Your task to perform on an android device: Add "duracell triple a" to the cart on target.com Image 0: 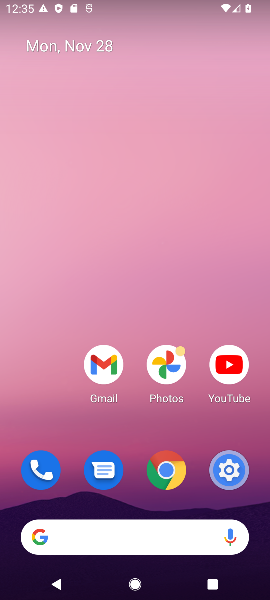
Step 0: click (136, 542)
Your task to perform on an android device: Add "duracell triple a" to the cart on target.com Image 1: 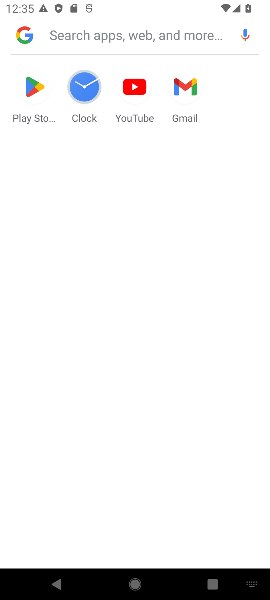
Step 1: type "duracell"
Your task to perform on an android device: Add "duracell triple a" to the cart on target.com Image 2: 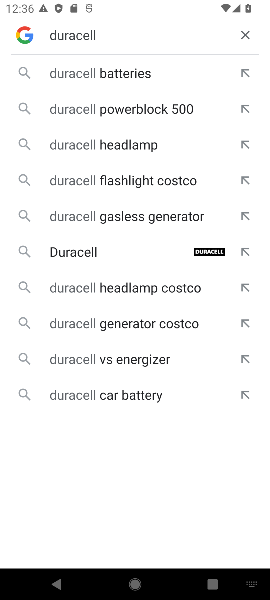
Step 2: click (65, 82)
Your task to perform on an android device: Add "duracell triple a" to the cart on target.com Image 3: 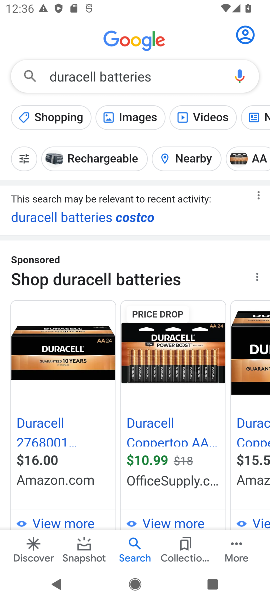
Step 3: click (44, 430)
Your task to perform on an android device: Add "duracell triple a" to the cart on target.com Image 4: 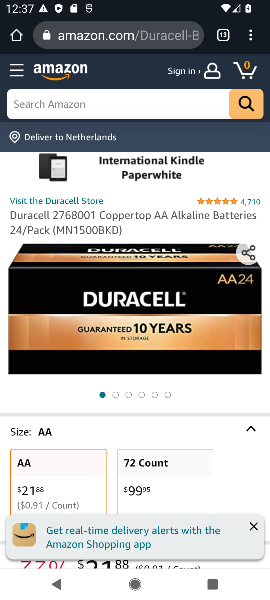
Step 4: task complete